Your task to perform on an android device: turn off notifications in google photos Image 0: 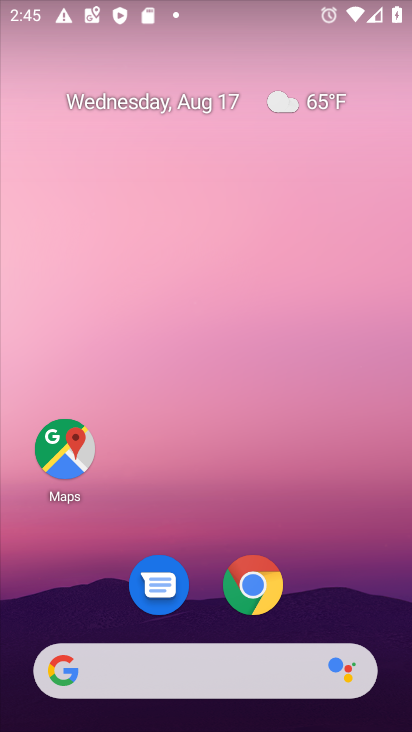
Step 0: drag from (226, 445) to (244, 2)
Your task to perform on an android device: turn off notifications in google photos Image 1: 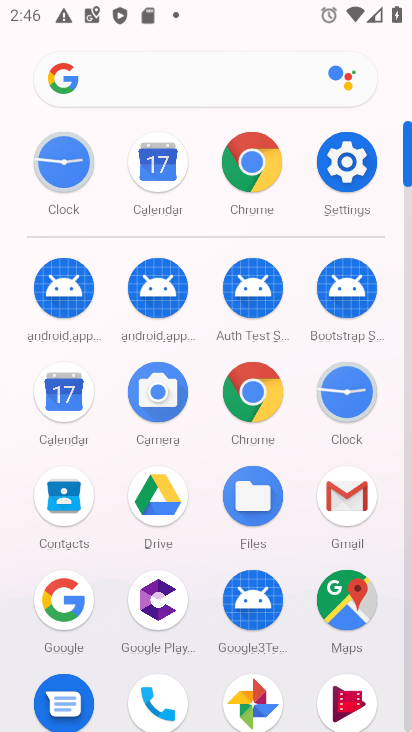
Step 1: drag from (176, 486) to (159, 347)
Your task to perform on an android device: turn off notifications in google photos Image 2: 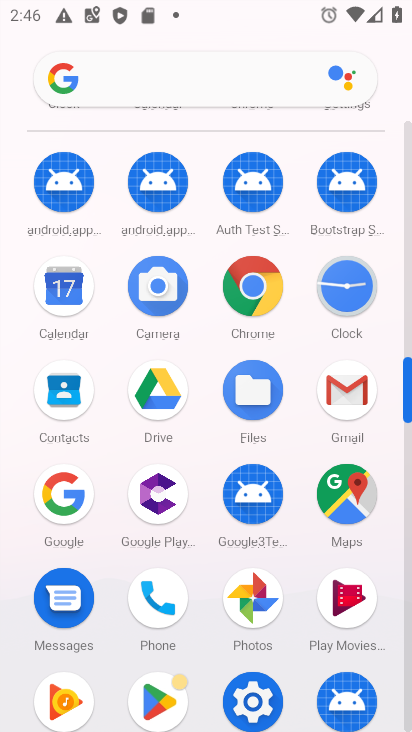
Step 2: click (259, 595)
Your task to perform on an android device: turn off notifications in google photos Image 3: 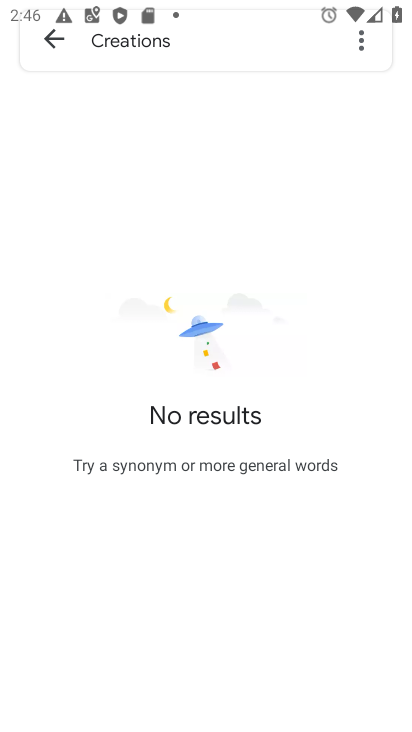
Step 3: click (47, 28)
Your task to perform on an android device: turn off notifications in google photos Image 4: 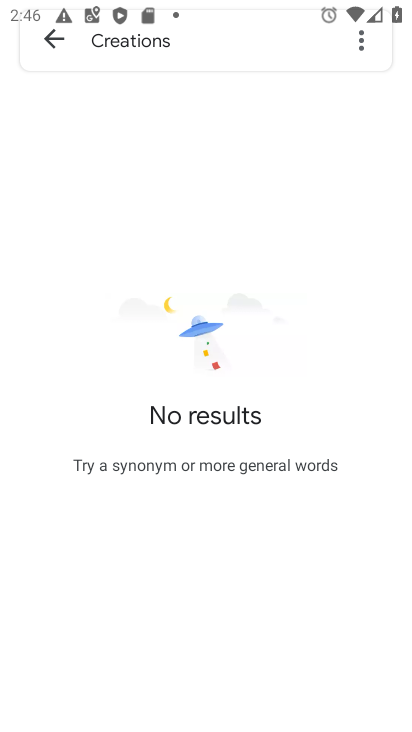
Step 4: click (55, 32)
Your task to perform on an android device: turn off notifications in google photos Image 5: 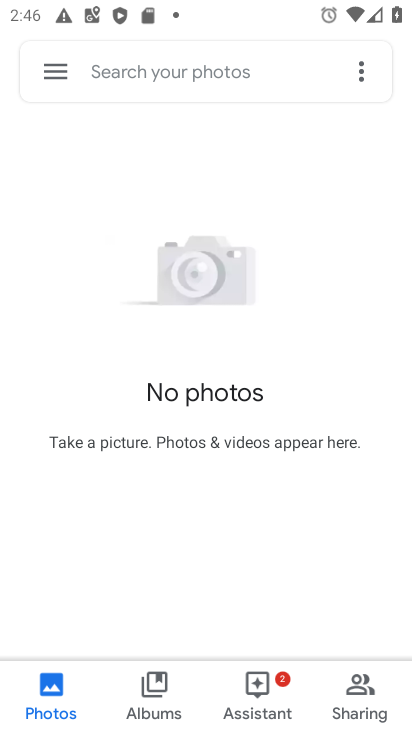
Step 5: click (57, 72)
Your task to perform on an android device: turn off notifications in google photos Image 6: 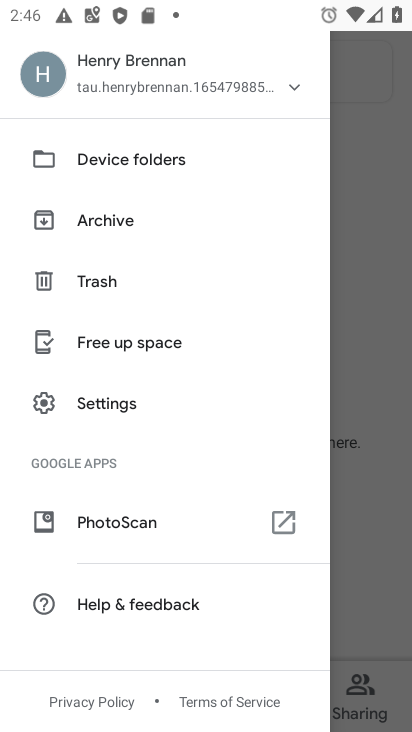
Step 6: click (123, 404)
Your task to perform on an android device: turn off notifications in google photos Image 7: 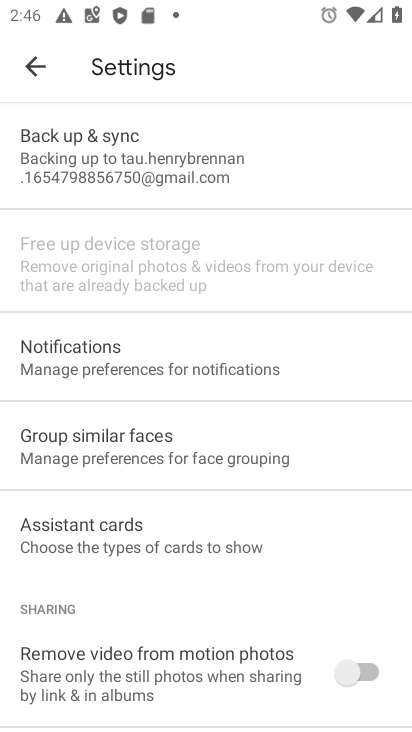
Step 7: click (115, 363)
Your task to perform on an android device: turn off notifications in google photos Image 8: 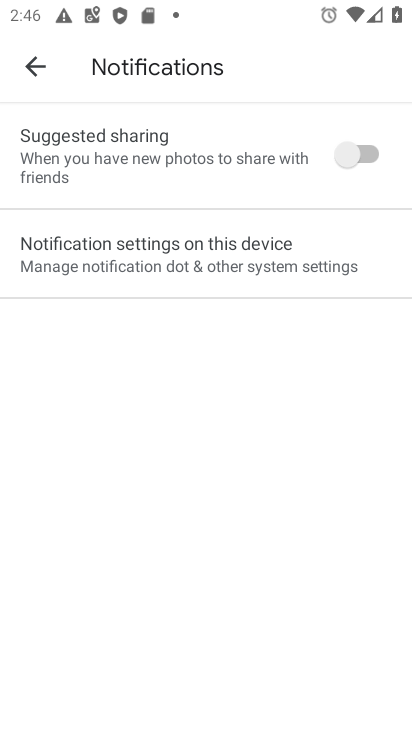
Step 8: click (139, 264)
Your task to perform on an android device: turn off notifications in google photos Image 9: 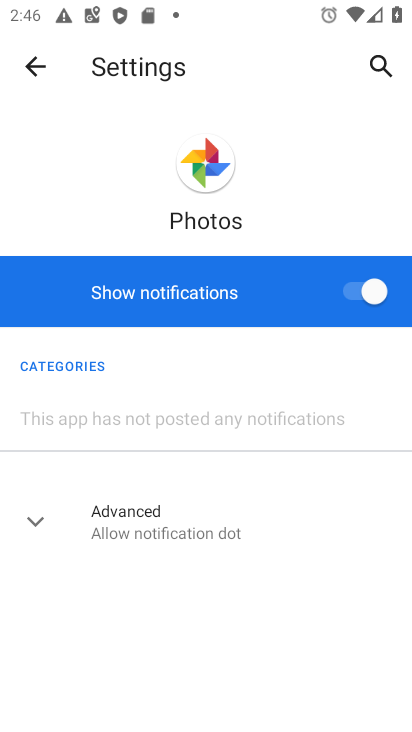
Step 9: click (372, 283)
Your task to perform on an android device: turn off notifications in google photos Image 10: 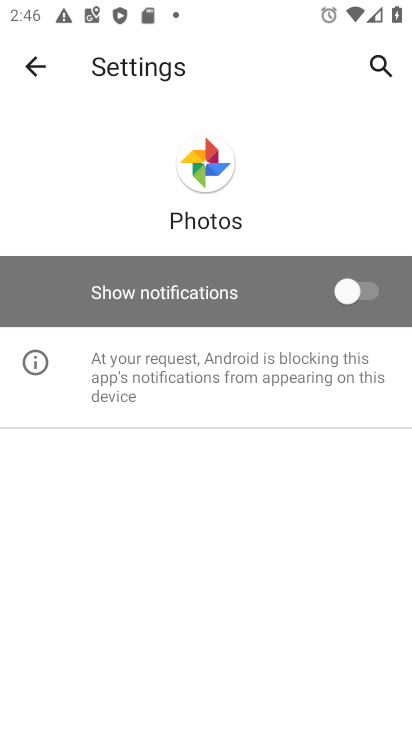
Step 10: task complete